Your task to perform on an android device: delete a single message in the gmail app Image 0: 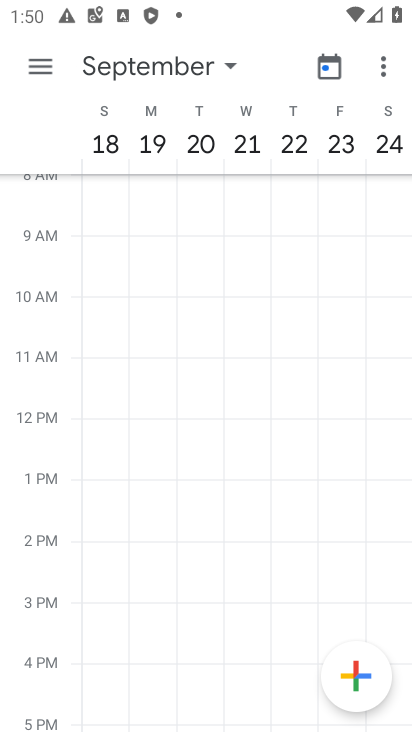
Step 0: press home button
Your task to perform on an android device: delete a single message in the gmail app Image 1: 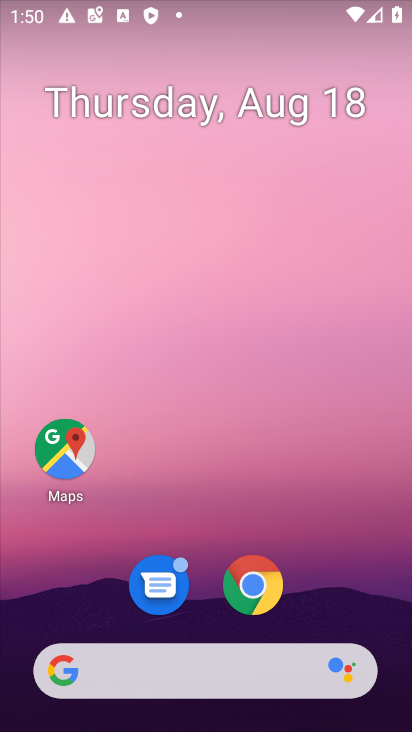
Step 1: drag from (231, 497) to (208, 3)
Your task to perform on an android device: delete a single message in the gmail app Image 2: 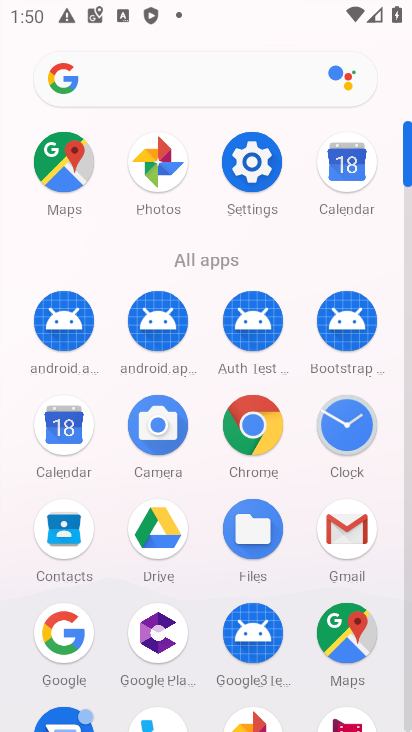
Step 2: click (340, 525)
Your task to perform on an android device: delete a single message in the gmail app Image 3: 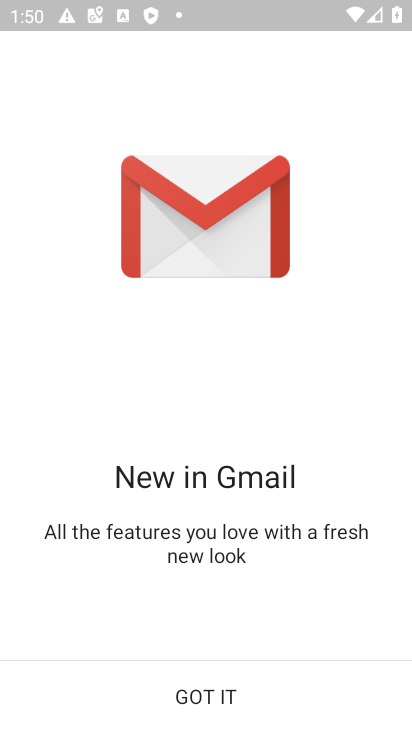
Step 3: click (240, 681)
Your task to perform on an android device: delete a single message in the gmail app Image 4: 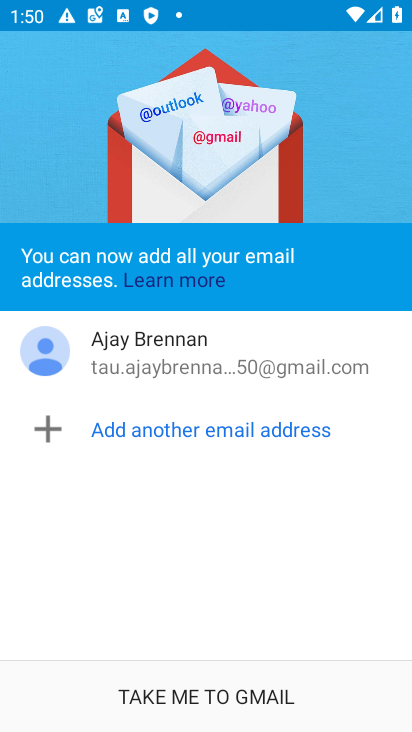
Step 4: click (243, 689)
Your task to perform on an android device: delete a single message in the gmail app Image 5: 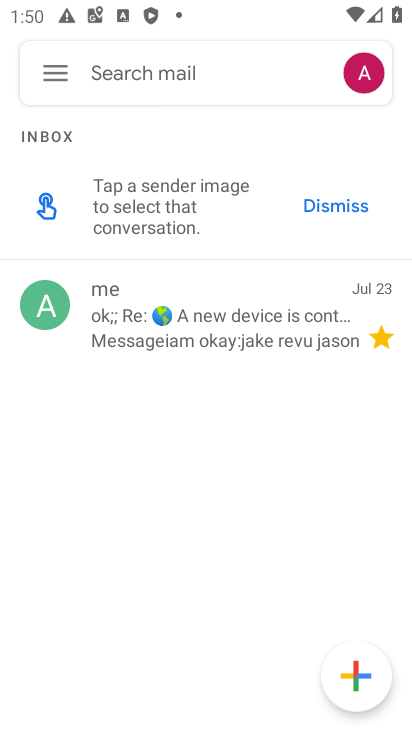
Step 5: click (46, 298)
Your task to perform on an android device: delete a single message in the gmail app Image 6: 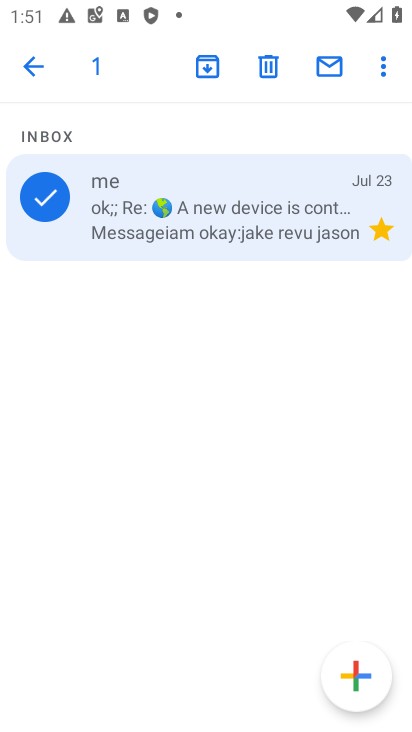
Step 6: click (272, 62)
Your task to perform on an android device: delete a single message in the gmail app Image 7: 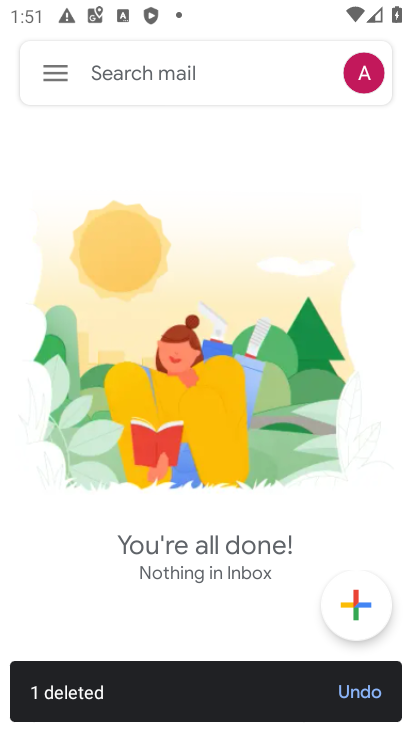
Step 7: task complete